Your task to perform on an android device: View the shopping cart on target.com. Add logitech g903 to the cart on target.com, then select checkout. Image 0: 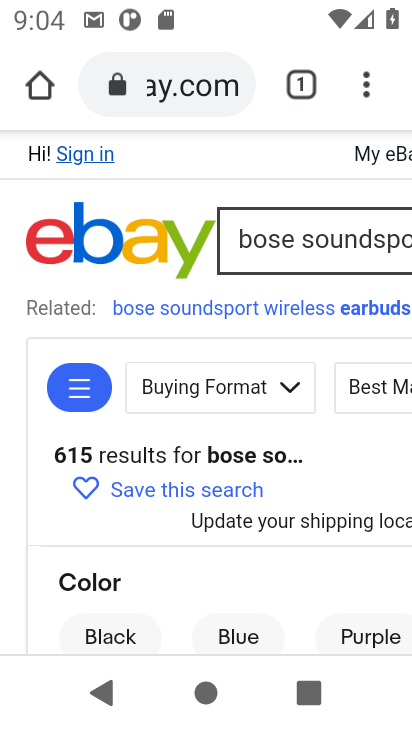
Step 0: task complete